Your task to perform on an android device: Check the weather Image 0: 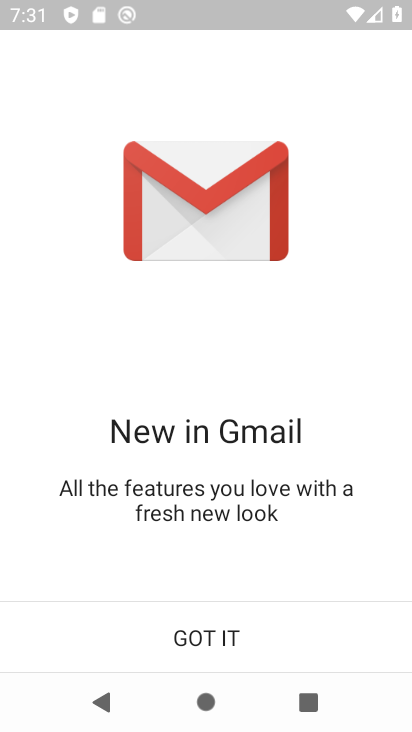
Step 0: press home button
Your task to perform on an android device: Check the weather Image 1: 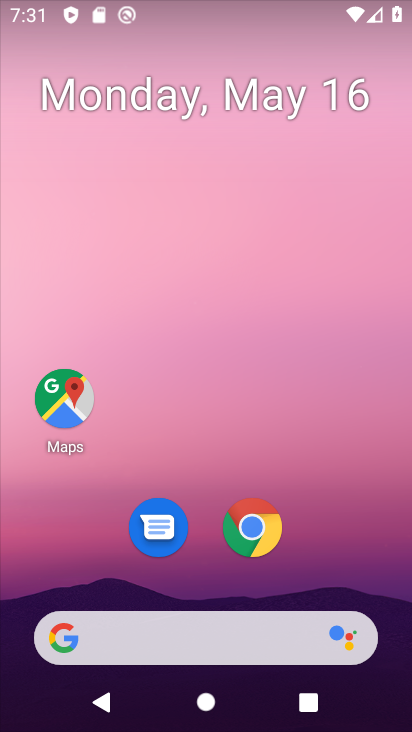
Step 1: click (136, 624)
Your task to perform on an android device: Check the weather Image 2: 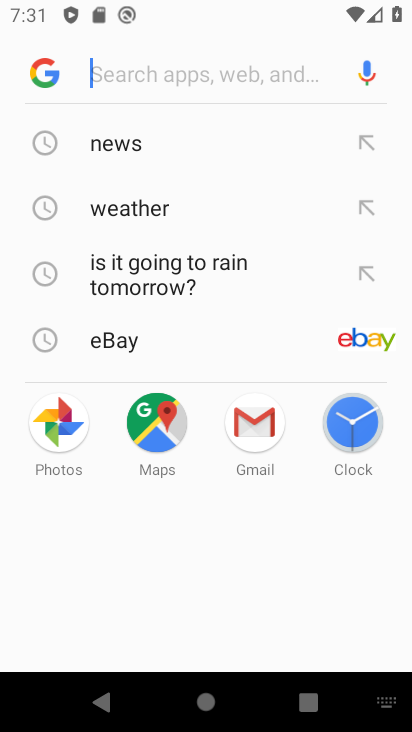
Step 2: click (169, 213)
Your task to perform on an android device: Check the weather Image 3: 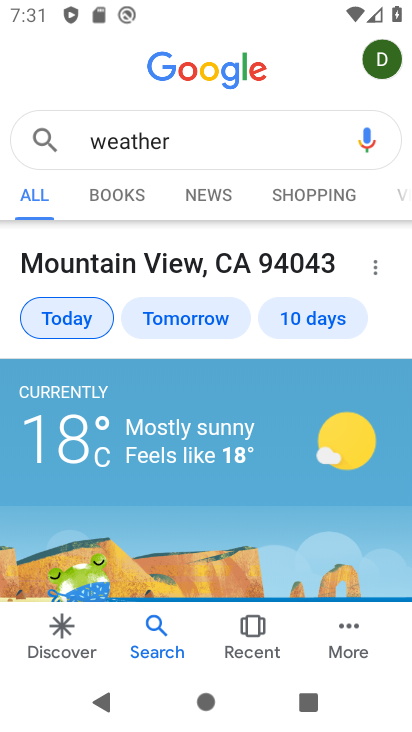
Step 3: task complete